Your task to perform on an android device: visit the assistant section in the google photos Image 0: 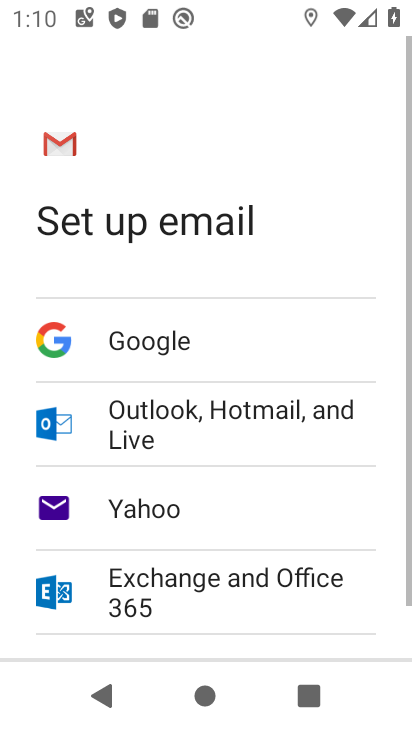
Step 0: press home button
Your task to perform on an android device: visit the assistant section in the google photos Image 1: 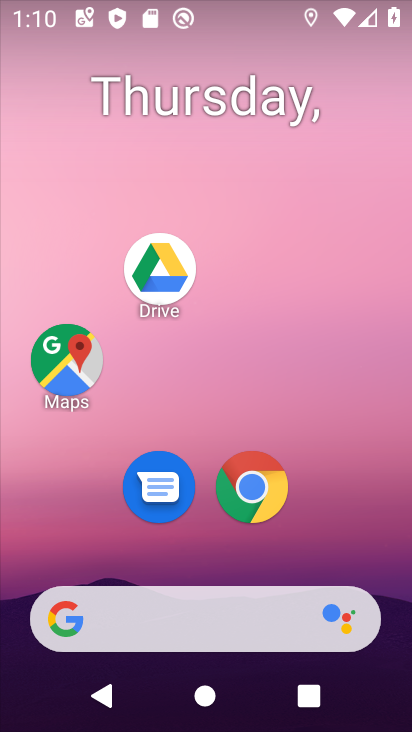
Step 1: drag from (220, 574) to (217, 31)
Your task to perform on an android device: visit the assistant section in the google photos Image 2: 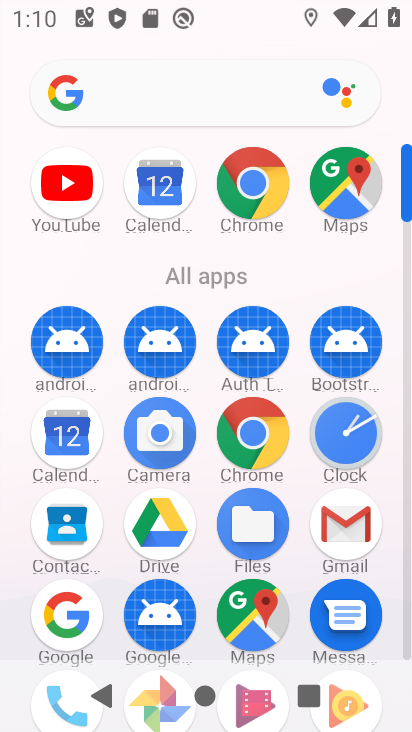
Step 2: drag from (211, 648) to (195, 212)
Your task to perform on an android device: visit the assistant section in the google photos Image 3: 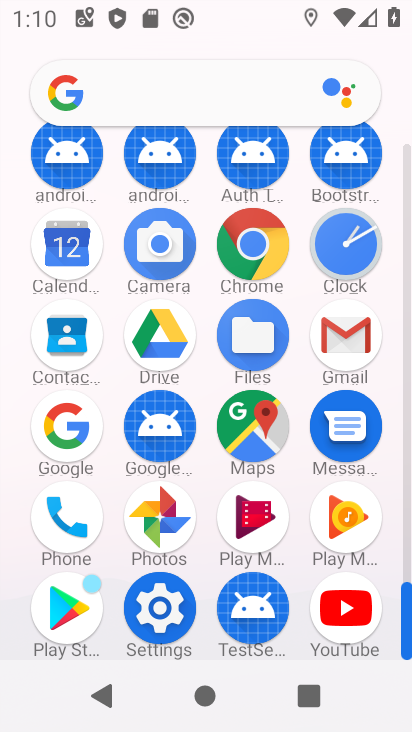
Step 3: click (151, 505)
Your task to perform on an android device: visit the assistant section in the google photos Image 4: 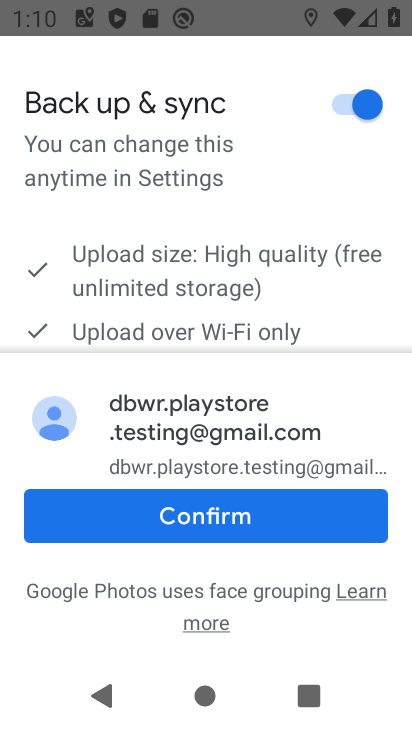
Step 4: click (222, 501)
Your task to perform on an android device: visit the assistant section in the google photos Image 5: 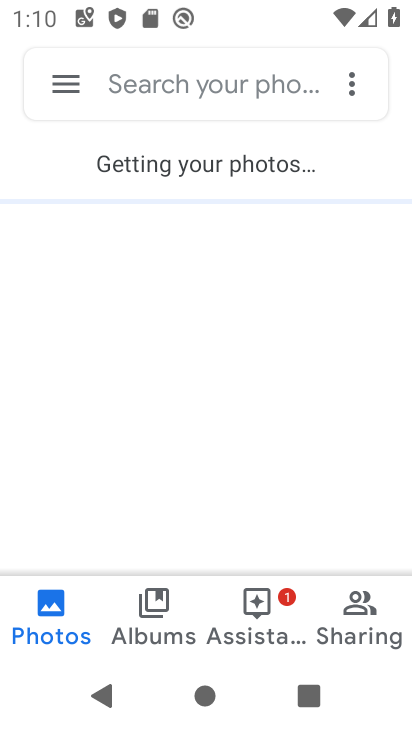
Step 5: click (264, 606)
Your task to perform on an android device: visit the assistant section in the google photos Image 6: 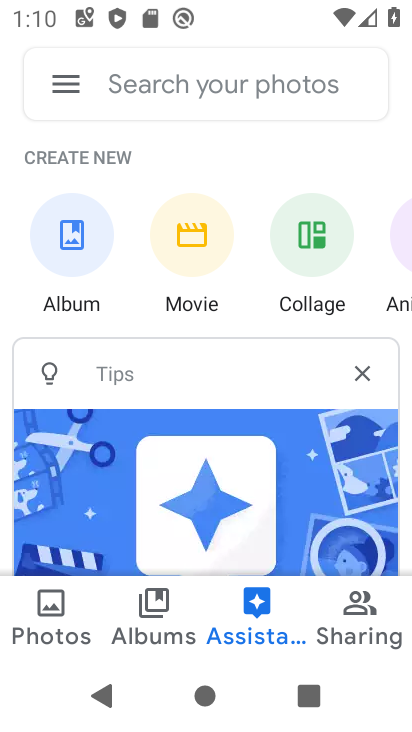
Step 6: task complete